Your task to perform on an android device: View the shopping cart on target.com. Search for "usb-b" on target.com, select the first entry, add it to the cart, then select checkout. Image 0: 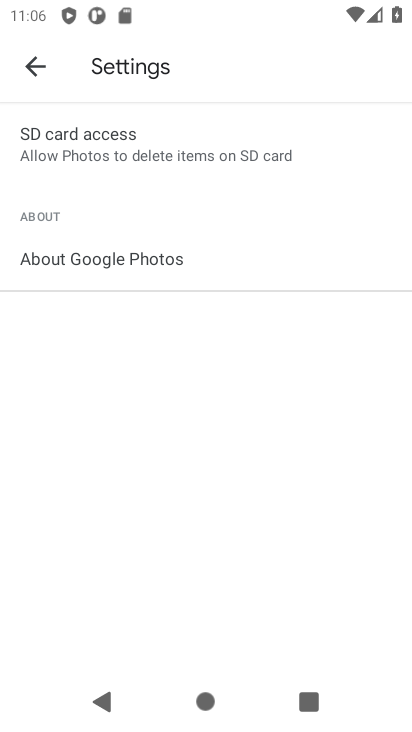
Step 0: press home button
Your task to perform on an android device: View the shopping cart on target.com. Search for "usb-b" on target.com, select the first entry, add it to the cart, then select checkout. Image 1: 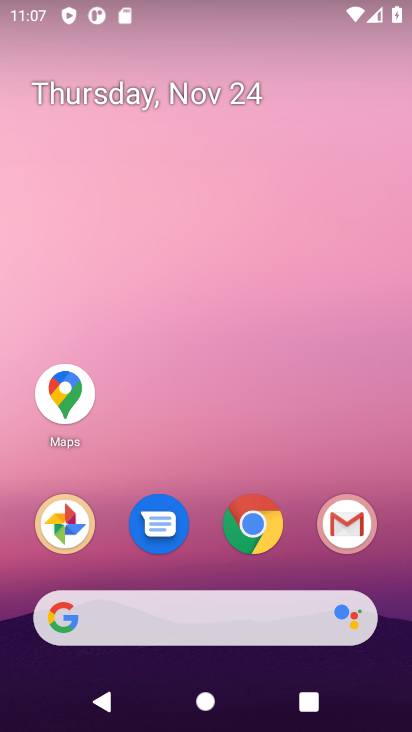
Step 1: click (253, 526)
Your task to perform on an android device: View the shopping cart on target.com. Search for "usb-b" on target.com, select the first entry, add it to the cart, then select checkout. Image 2: 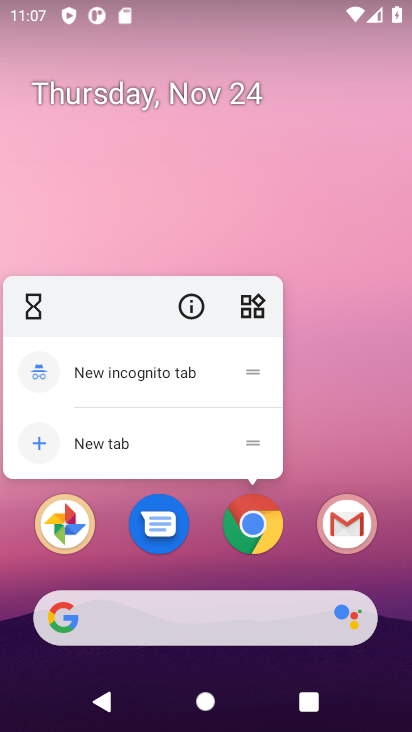
Step 2: click (254, 528)
Your task to perform on an android device: View the shopping cart on target.com. Search for "usb-b" on target.com, select the first entry, add it to the cart, then select checkout. Image 3: 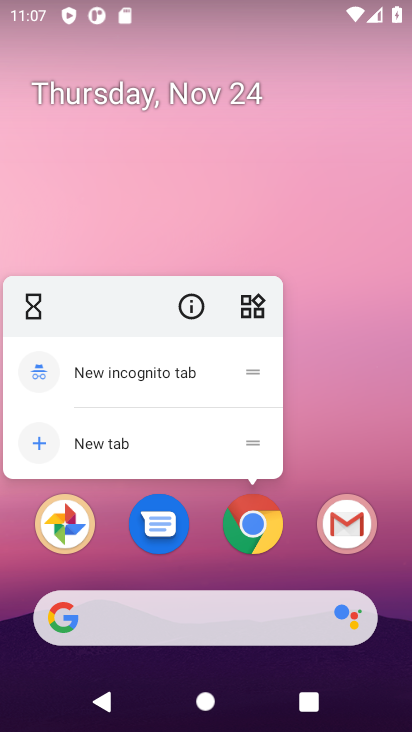
Step 3: click (254, 528)
Your task to perform on an android device: View the shopping cart on target.com. Search for "usb-b" on target.com, select the first entry, add it to the cart, then select checkout. Image 4: 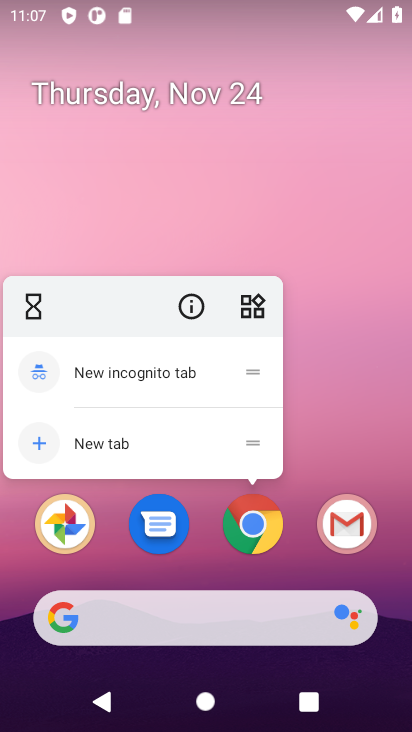
Step 4: click (254, 528)
Your task to perform on an android device: View the shopping cart on target.com. Search for "usb-b" on target.com, select the first entry, add it to the cart, then select checkout. Image 5: 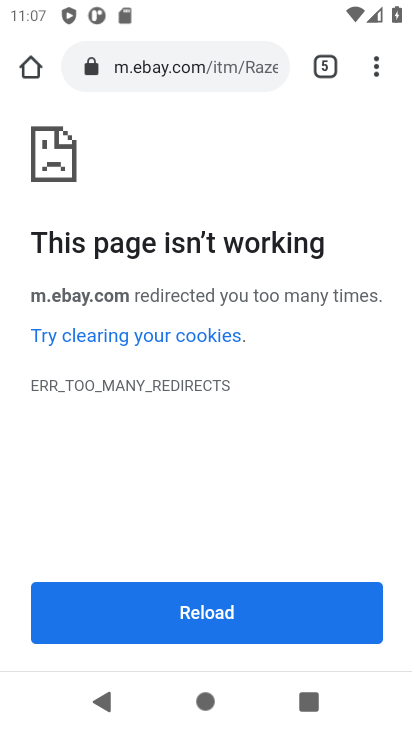
Step 5: click (176, 70)
Your task to perform on an android device: View the shopping cart on target.com. Search for "usb-b" on target.com, select the first entry, add it to the cart, then select checkout. Image 6: 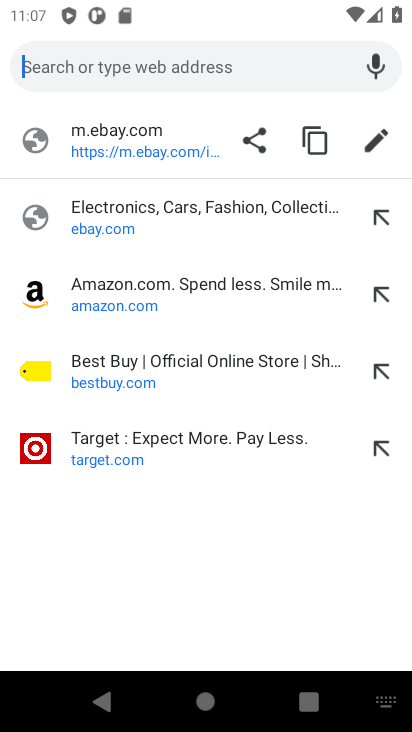
Step 6: click (94, 441)
Your task to perform on an android device: View the shopping cart on target.com. Search for "usb-b" on target.com, select the first entry, add it to the cart, then select checkout. Image 7: 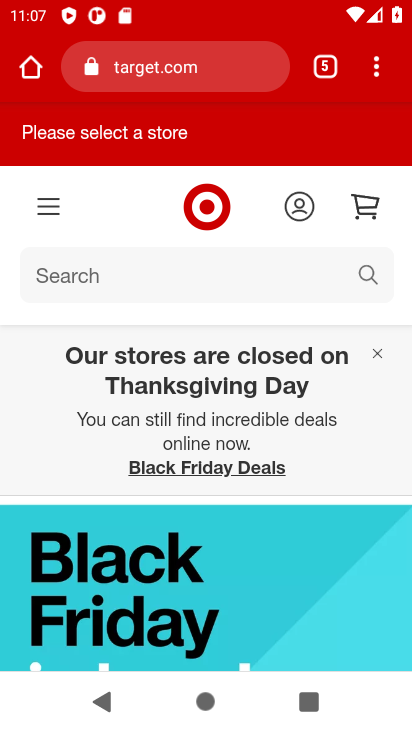
Step 7: click (354, 208)
Your task to perform on an android device: View the shopping cart on target.com. Search for "usb-b" on target.com, select the first entry, add it to the cart, then select checkout. Image 8: 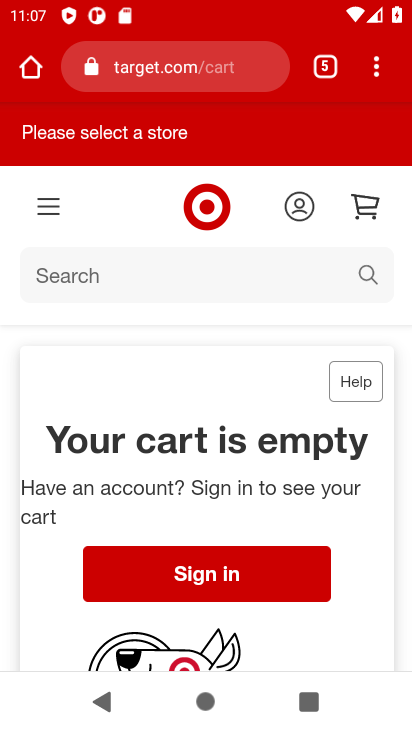
Step 8: click (364, 282)
Your task to perform on an android device: View the shopping cart on target.com. Search for "usb-b" on target.com, select the first entry, add it to the cart, then select checkout. Image 9: 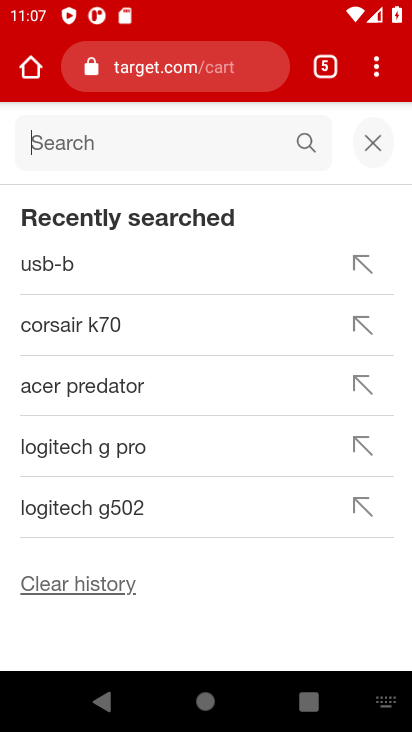
Step 9: type "usb-b"
Your task to perform on an android device: View the shopping cart on target.com. Search for "usb-b" on target.com, select the first entry, add it to the cart, then select checkout. Image 10: 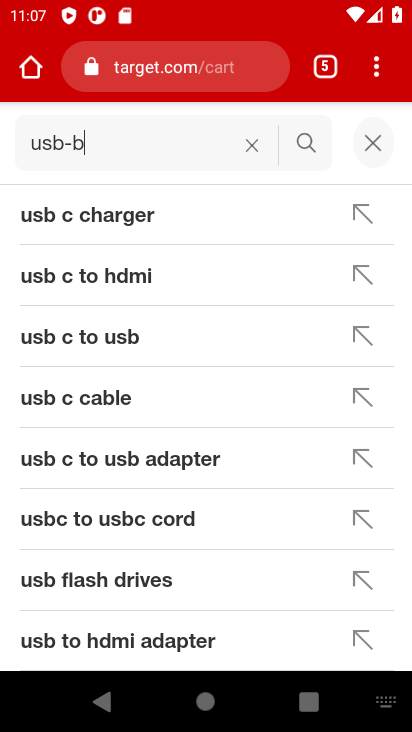
Step 10: click (300, 133)
Your task to perform on an android device: View the shopping cart on target.com. Search for "usb-b" on target.com, select the first entry, add it to the cart, then select checkout. Image 11: 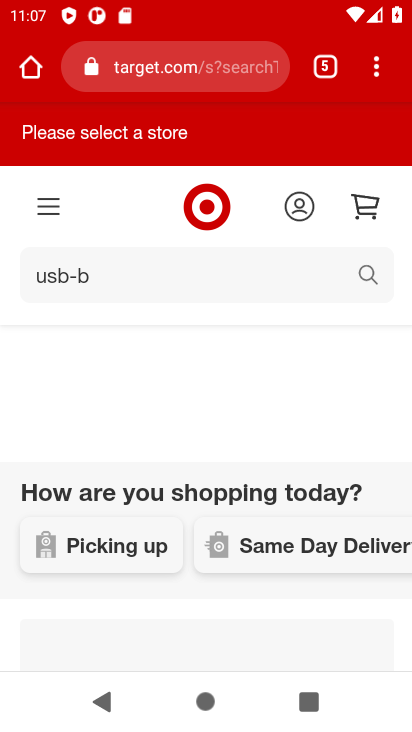
Step 11: drag from (183, 574) to (177, 273)
Your task to perform on an android device: View the shopping cart on target.com. Search for "usb-b" on target.com, select the first entry, add it to the cart, then select checkout. Image 12: 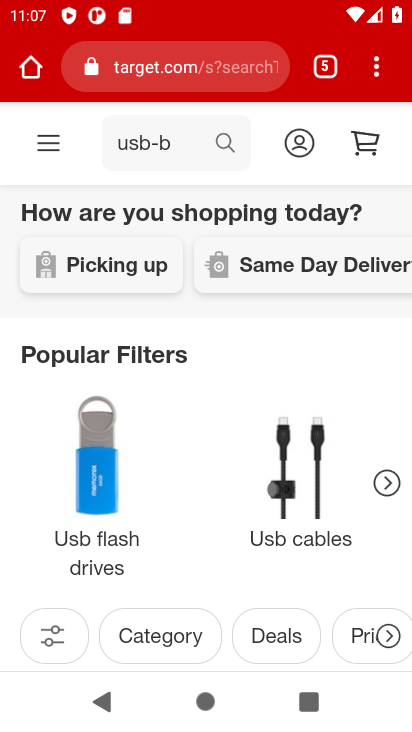
Step 12: drag from (154, 540) to (154, 334)
Your task to perform on an android device: View the shopping cart on target.com. Search for "usb-b" on target.com, select the first entry, add it to the cart, then select checkout. Image 13: 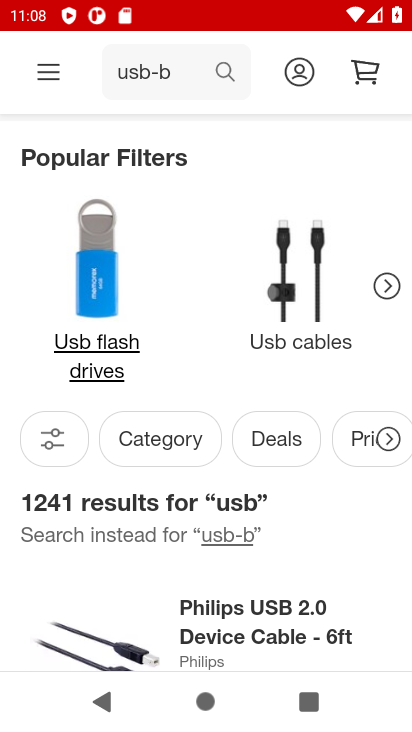
Step 13: drag from (151, 525) to (128, 299)
Your task to perform on an android device: View the shopping cart on target.com. Search for "usb-b" on target.com, select the first entry, add it to the cart, then select checkout. Image 14: 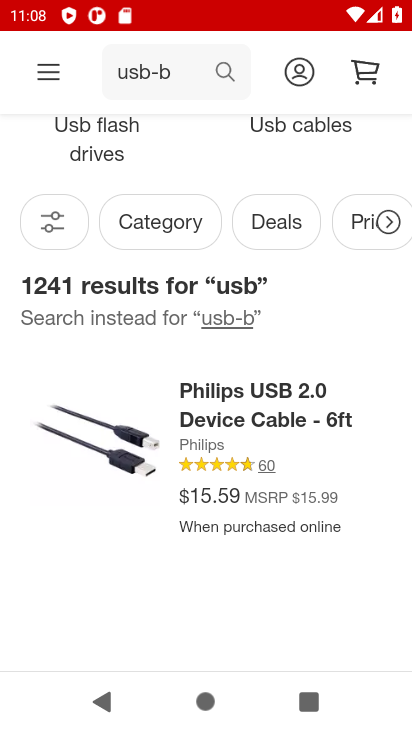
Step 14: drag from (114, 547) to (123, 447)
Your task to perform on an android device: View the shopping cart on target.com. Search for "usb-b" on target.com, select the first entry, add it to the cart, then select checkout. Image 15: 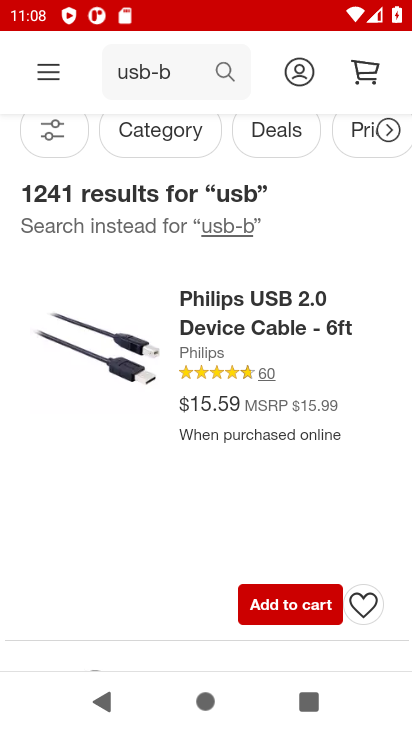
Step 15: click (106, 358)
Your task to perform on an android device: View the shopping cart on target.com. Search for "usb-b" on target.com, select the first entry, add it to the cart, then select checkout. Image 16: 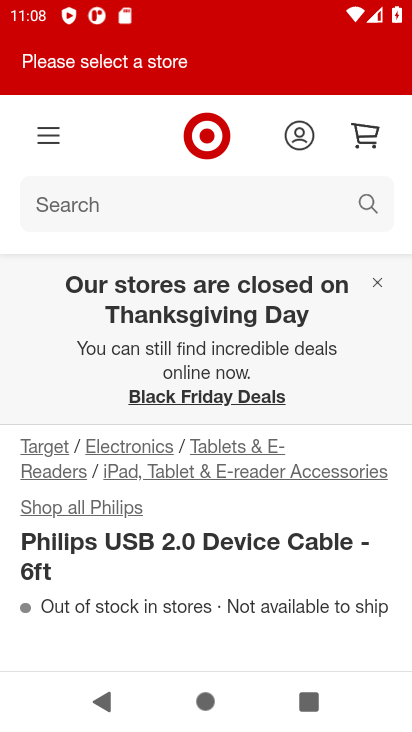
Step 16: task complete